Your task to perform on an android device: change notifications settings Image 0: 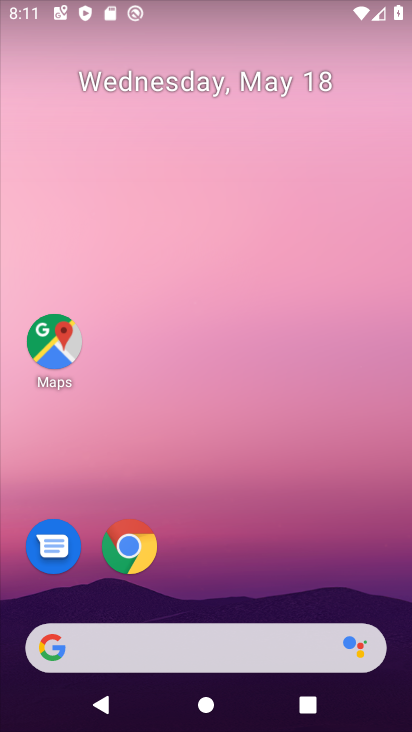
Step 0: drag from (266, 668) to (256, 162)
Your task to perform on an android device: change notifications settings Image 1: 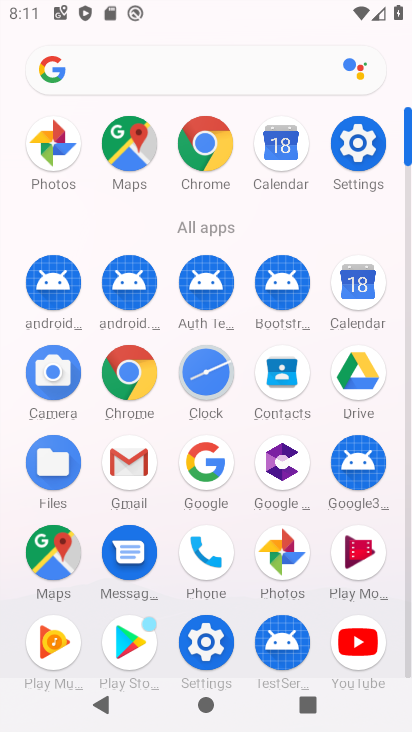
Step 1: click (368, 152)
Your task to perform on an android device: change notifications settings Image 2: 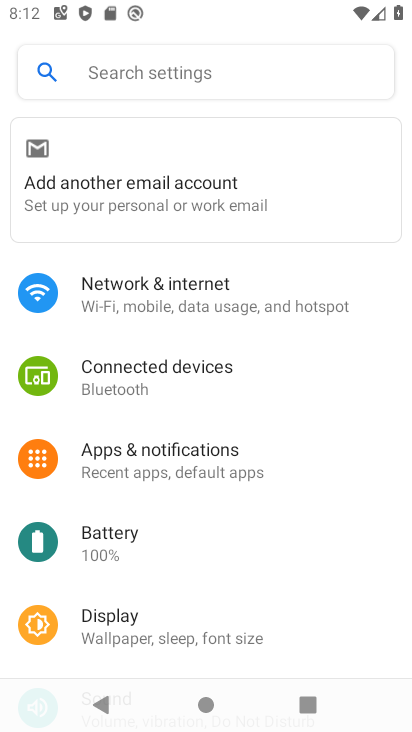
Step 2: click (234, 61)
Your task to perform on an android device: change notifications settings Image 3: 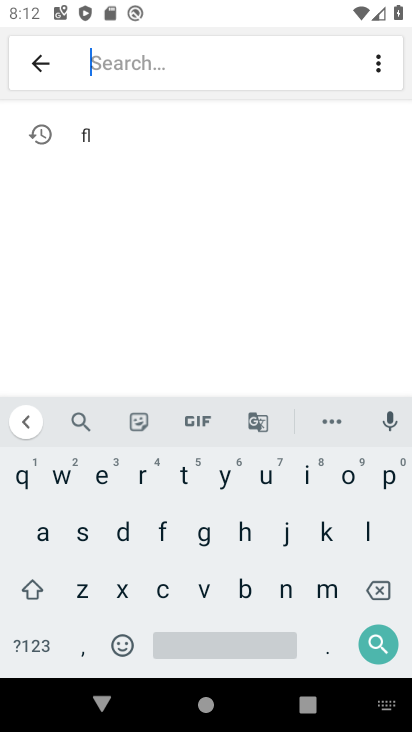
Step 3: click (287, 593)
Your task to perform on an android device: change notifications settings Image 4: 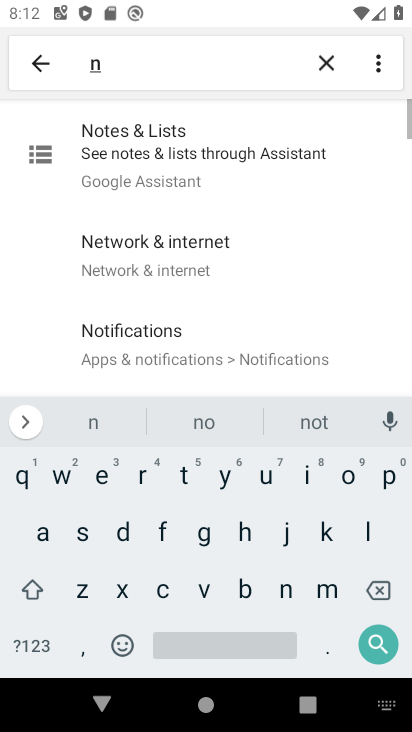
Step 4: click (337, 481)
Your task to perform on an android device: change notifications settings Image 5: 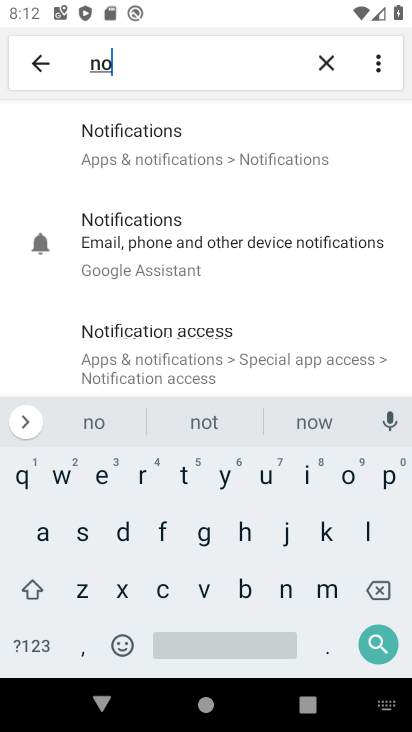
Step 5: click (135, 136)
Your task to perform on an android device: change notifications settings Image 6: 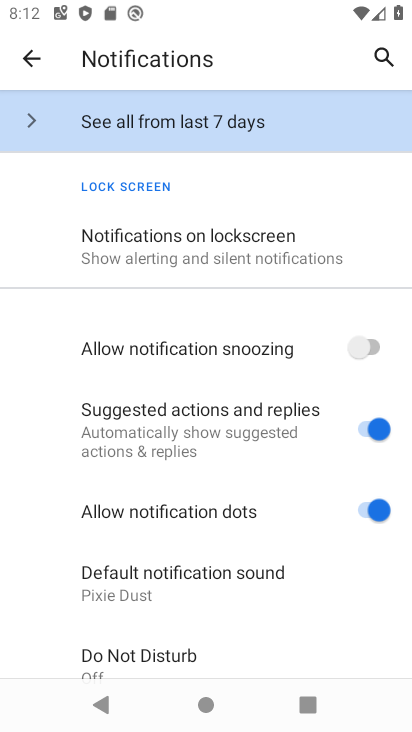
Step 6: click (188, 260)
Your task to perform on an android device: change notifications settings Image 7: 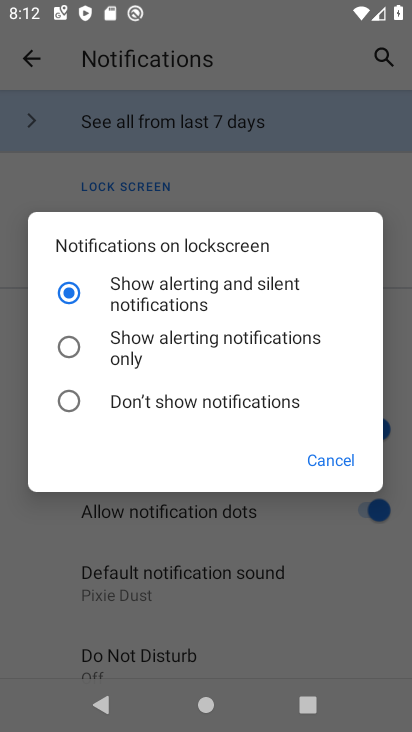
Step 7: click (167, 352)
Your task to perform on an android device: change notifications settings Image 8: 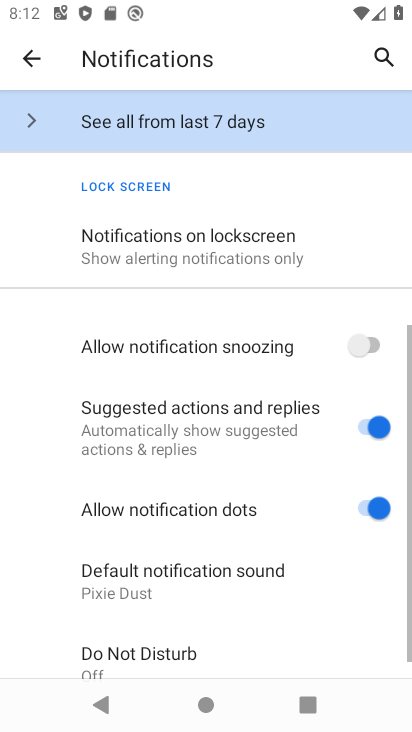
Step 8: task complete